Your task to perform on an android device: When is my next meeting? Image 0: 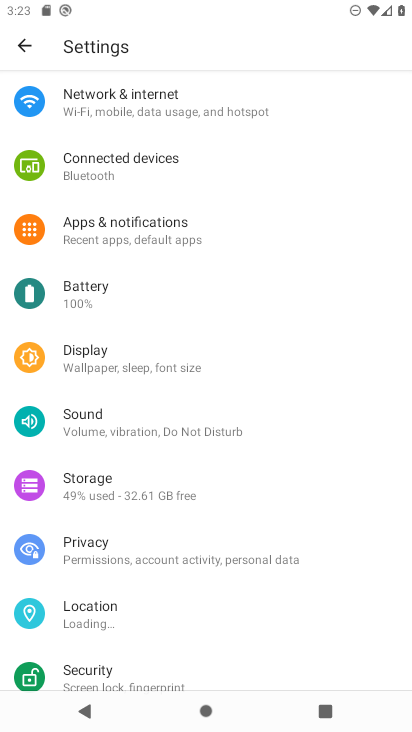
Step 0: press home button
Your task to perform on an android device: When is my next meeting? Image 1: 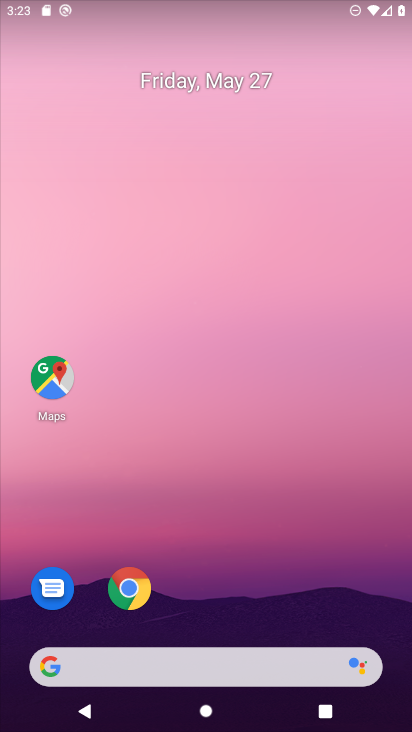
Step 1: drag from (225, 571) to (170, 74)
Your task to perform on an android device: When is my next meeting? Image 2: 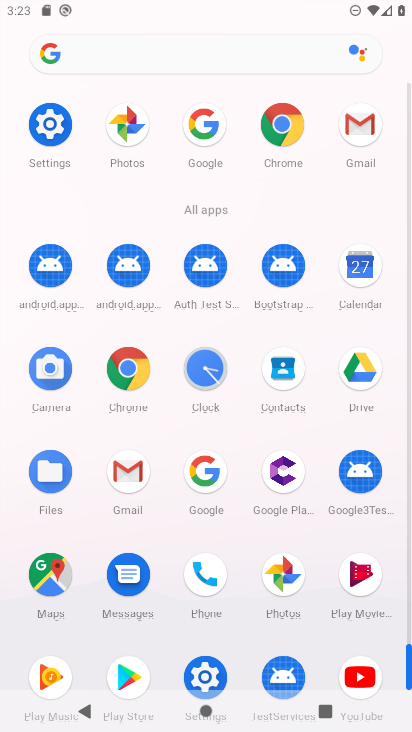
Step 2: click (347, 274)
Your task to perform on an android device: When is my next meeting? Image 3: 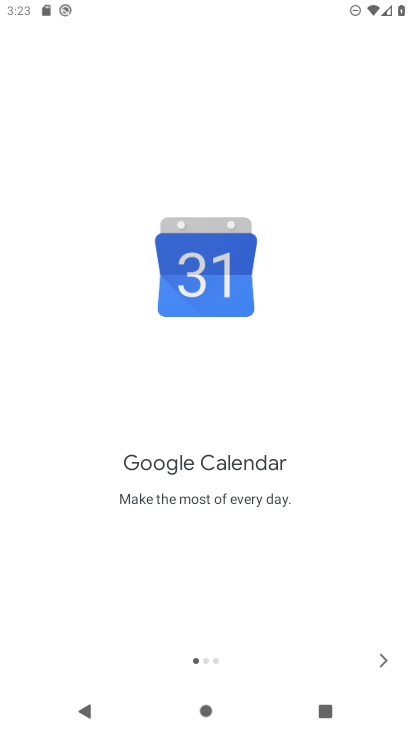
Step 3: click (377, 664)
Your task to perform on an android device: When is my next meeting? Image 4: 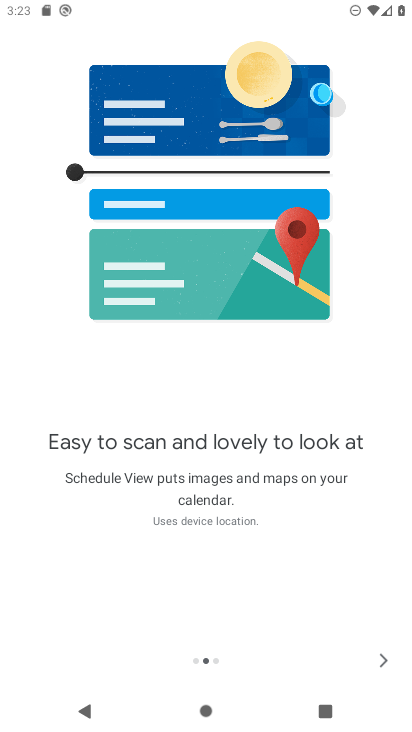
Step 4: click (377, 664)
Your task to perform on an android device: When is my next meeting? Image 5: 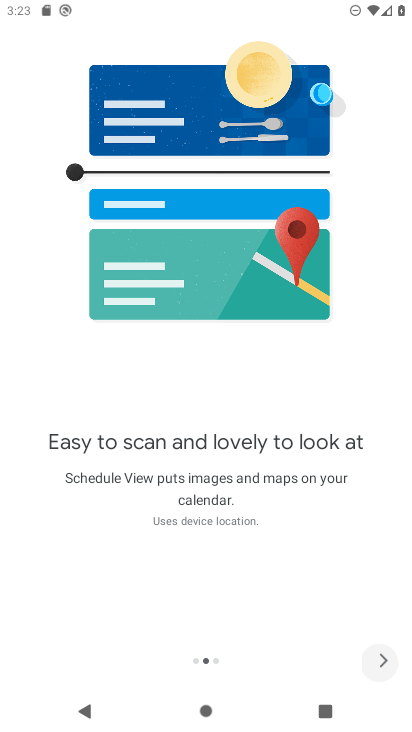
Step 5: click (377, 664)
Your task to perform on an android device: When is my next meeting? Image 6: 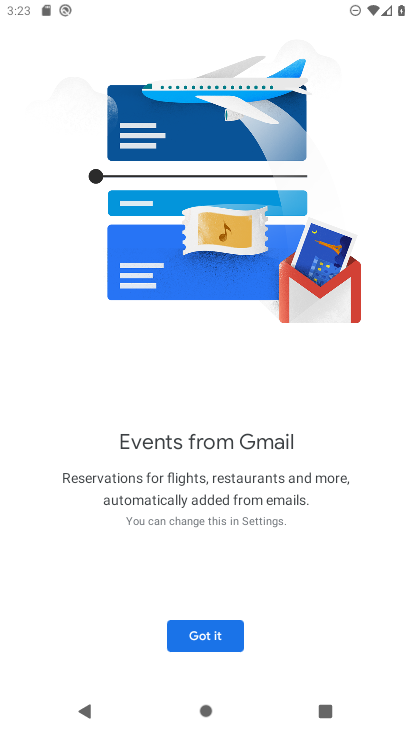
Step 6: click (192, 631)
Your task to perform on an android device: When is my next meeting? Image 7: 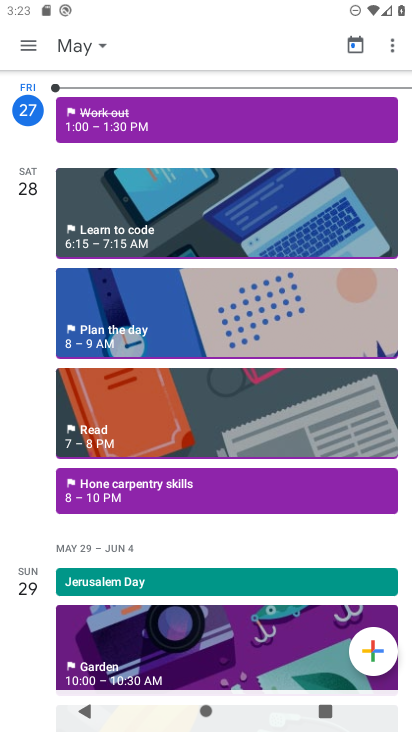
Step 7: drag from (269, 598) to (218, 1)
Your task to perform on an android device: When is my next meeting? Image 8: 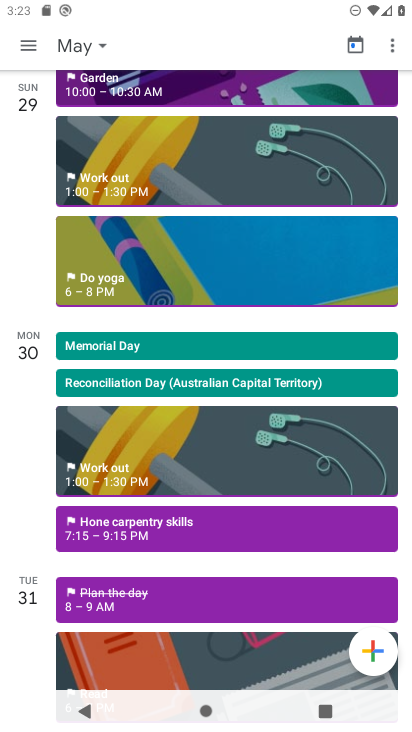
Step 8: drag from (258, 596) to (228, 39)
Your task to perform on an android device: When is my next meeting? Image 9: 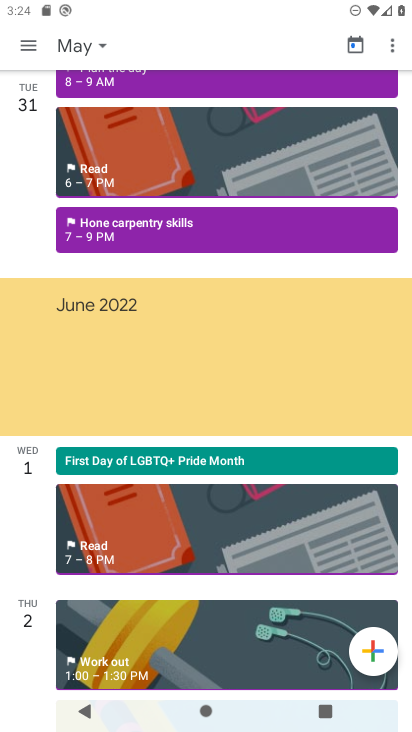
Step 9: drag from (248, 654) to (210, 96)
Your task to perform on an android device: When is my next meeting? Image 10: 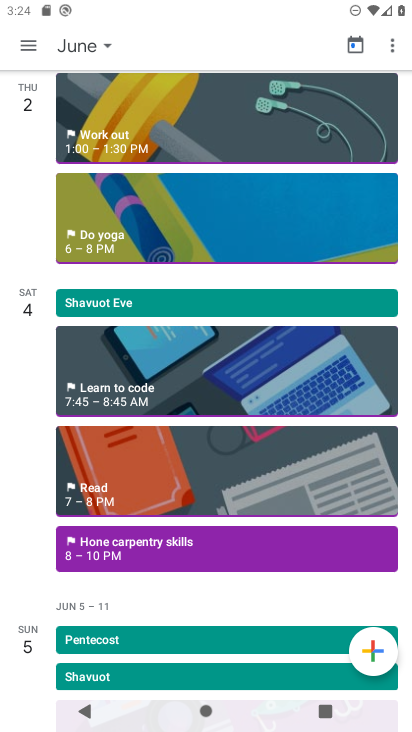
Step 10: drag from (284, 656) to (257, 186)
Your task to perform on an android device: When is my next meeting? Image 11: 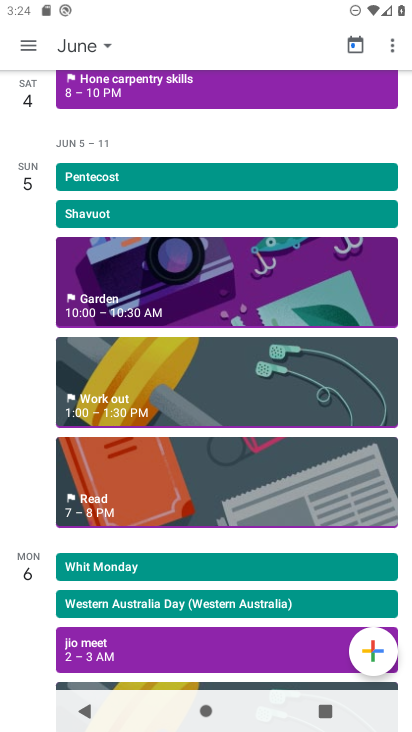
Step 11: click (115, 656)
Your task to perform on an android device: When is my next meeting? Image 12: 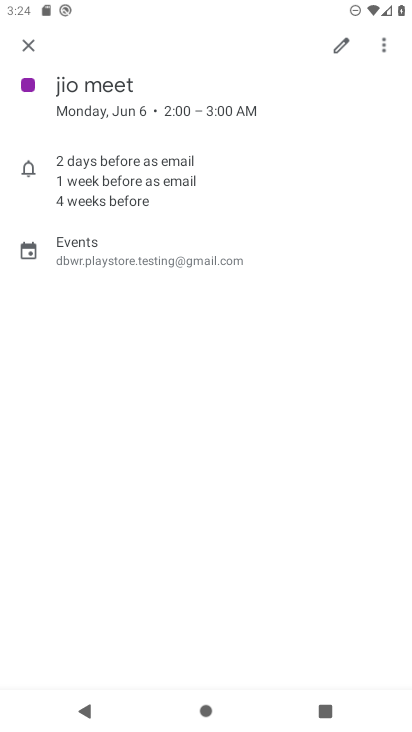
Step 12: task complete